Your task to perform on an android device: Open battery settings Image 0: 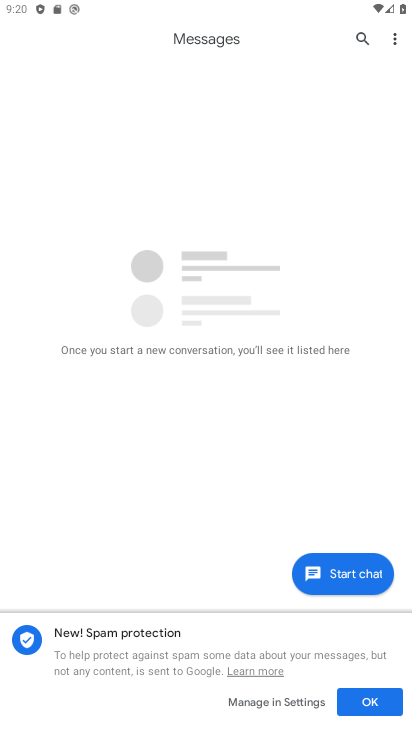
Step 0: press home button
Your task to perform on an android device: Open battery settings Image 1: 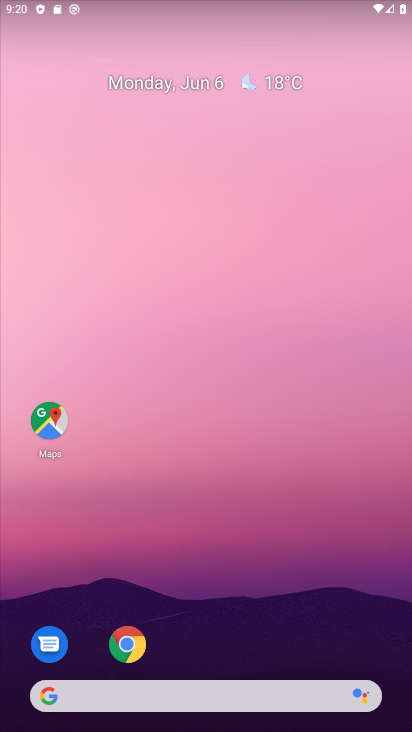
Step 1: drag from (276, 616) to (296, 223)
Your task to perform on an android device: Open battery settings Image 2: 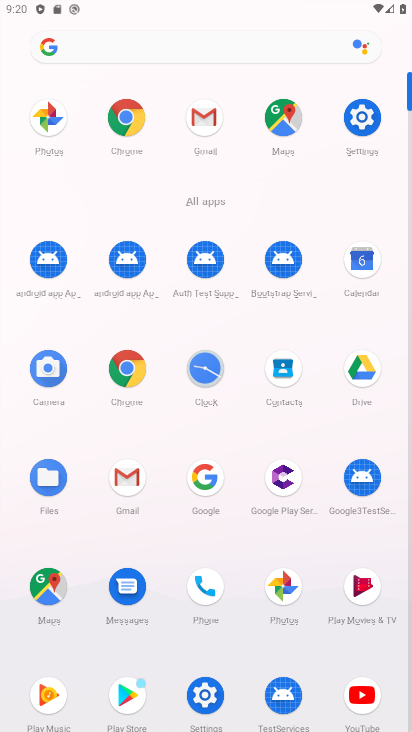
Step 2: click (370, 116)
Your task to perform on an android device: Open battery settings Image 3: 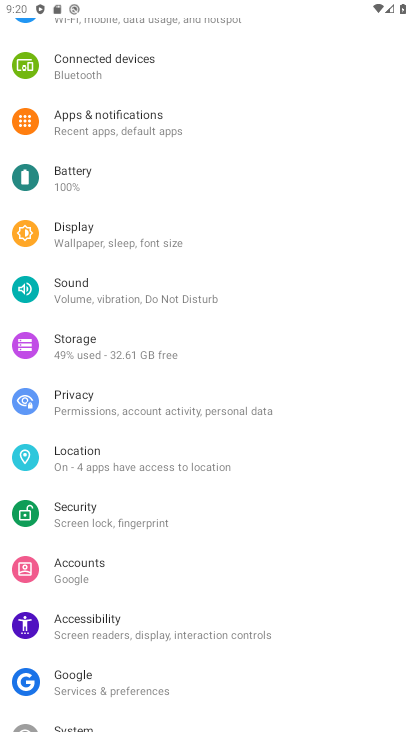
Step 3: click (122, 185)
Your task to perform on an android device: Open battery settings Image 4: 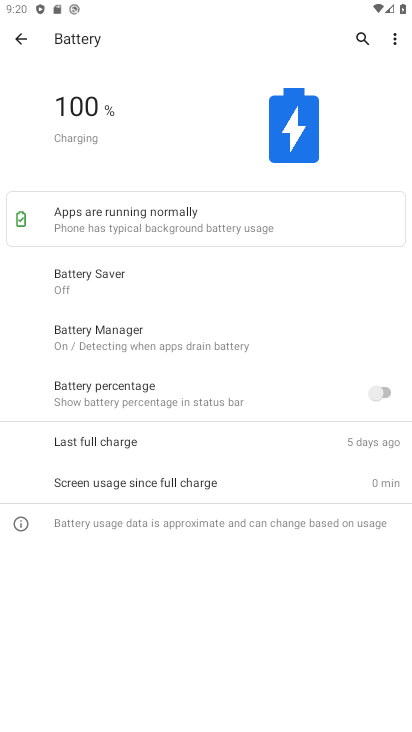
Step 4: task complete